Your task to perform on an android device: search for outdoor chairs on article.com Image 0: 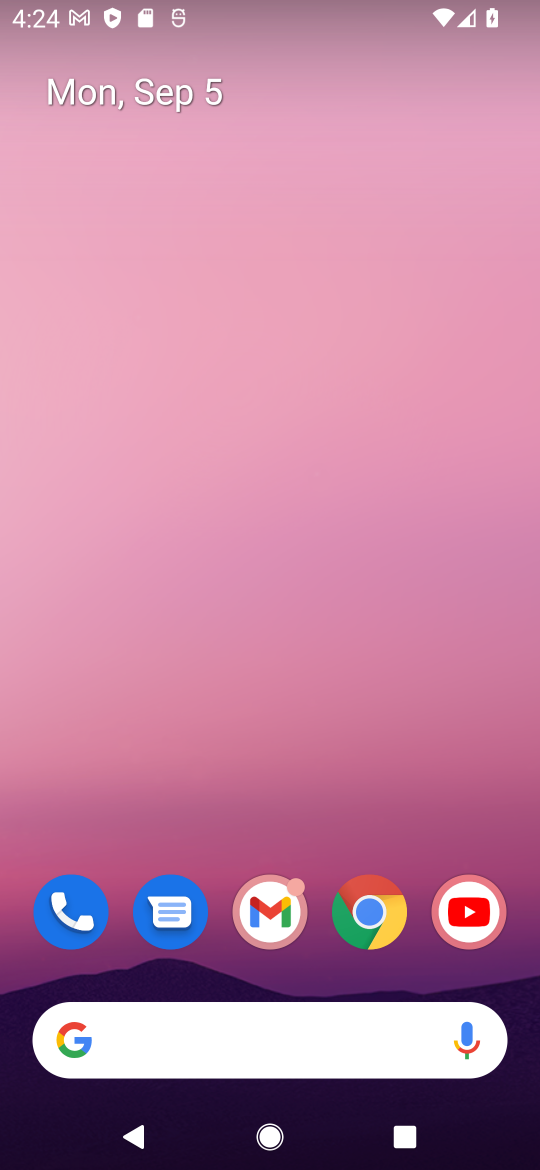
Step 0: click (373, 927)
Your task to perform on an android device: search for outdoor chairs on article.com Image 1: 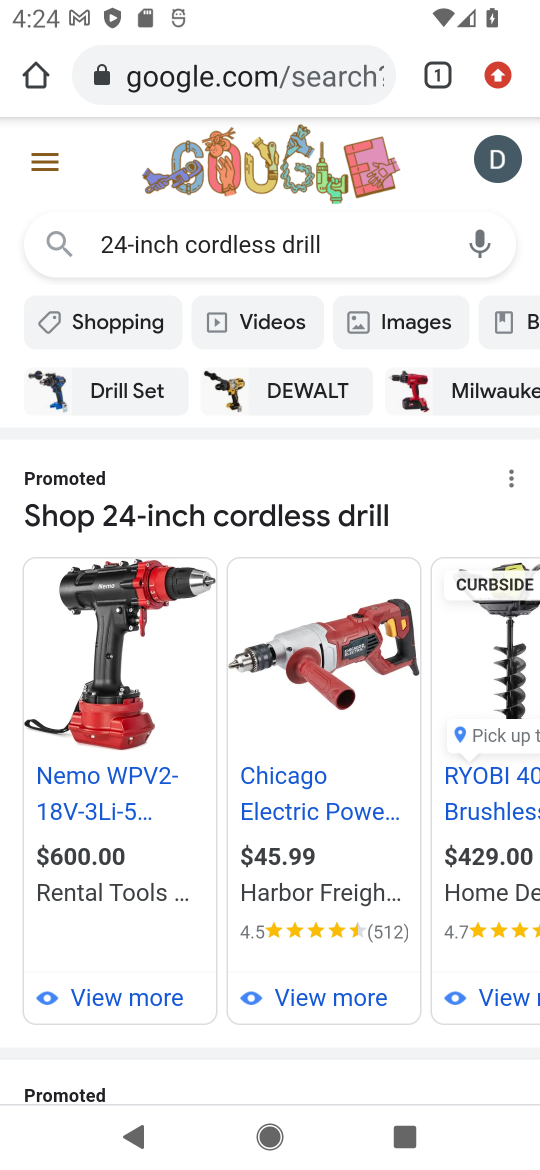
Step 1: click (303, 67)
Your task to perform on an android device: search for outdoor chairs on article.com Image 2: 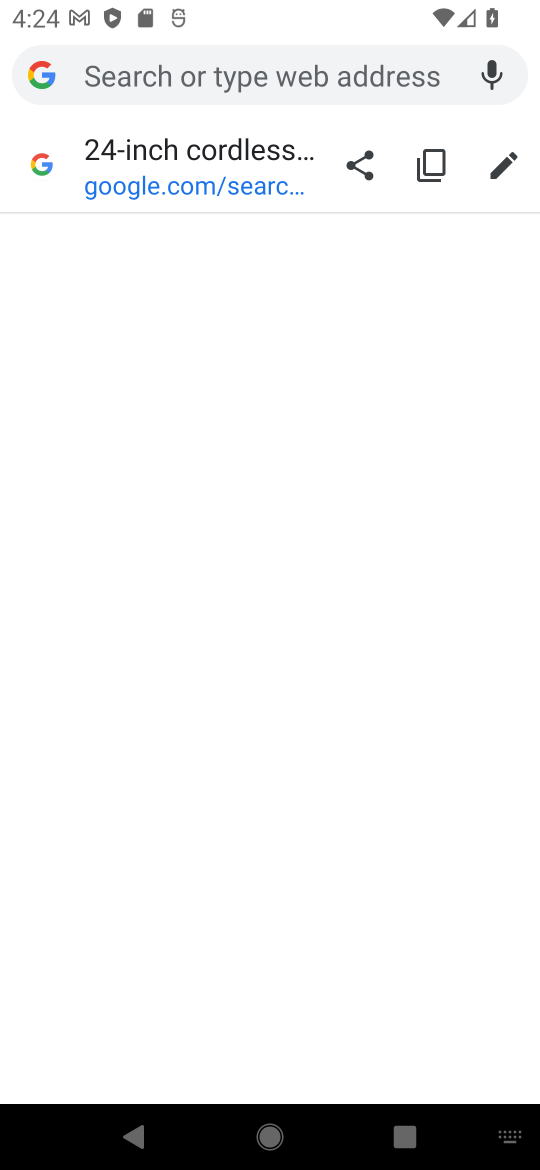
Step 2: type "article.com"
Your task to perform on an android device: search for outdoor chairs on article.com Image 3: 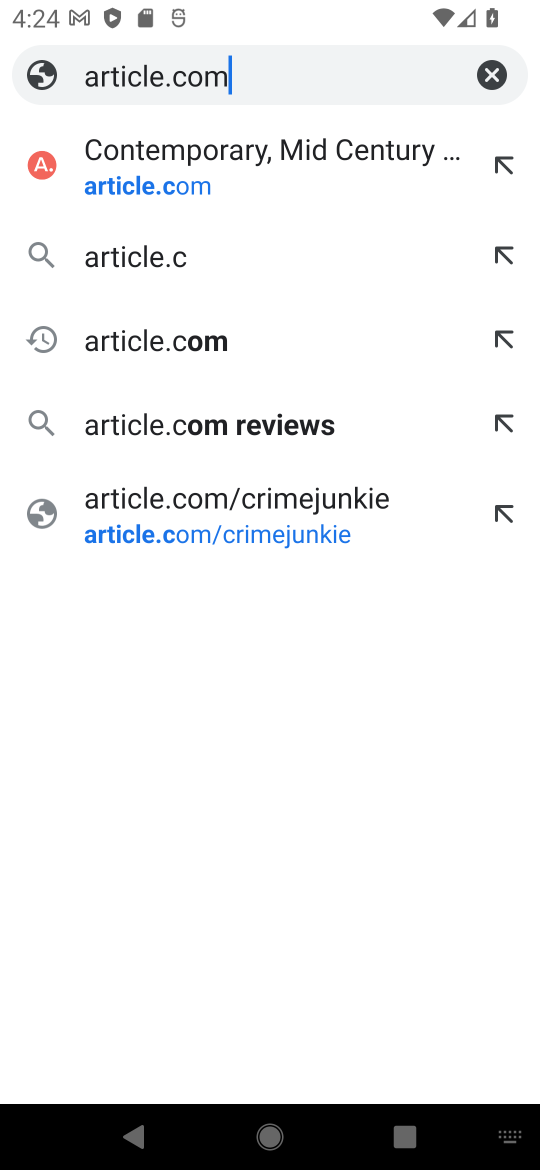
Step 3: type ""
Your task to perform on an android device: search for outdoor chairs on article.com Image 4: 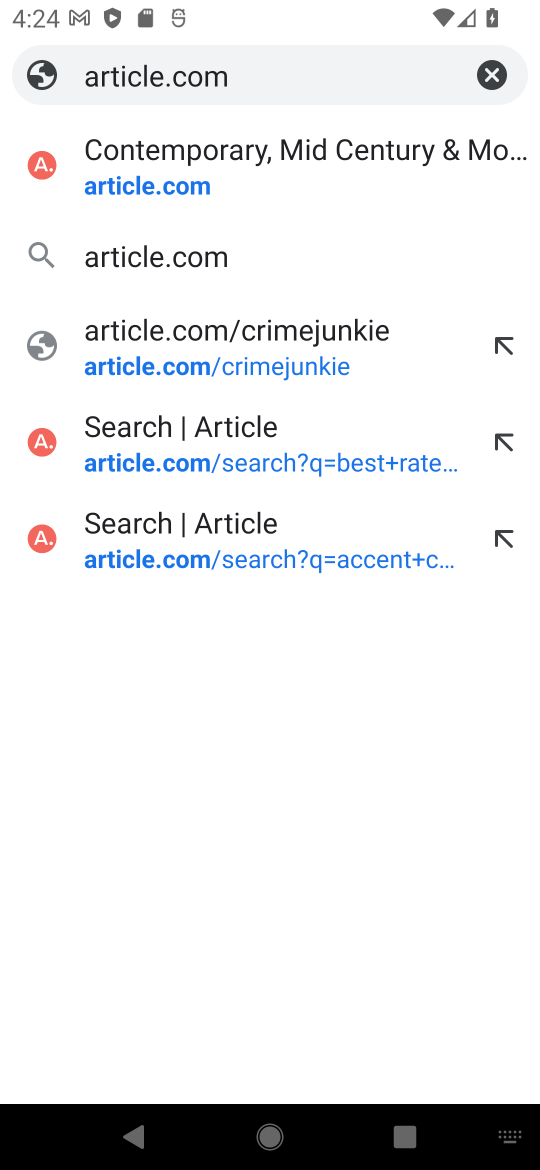
Step 4: press enter
Your task to perform on an android device: search for outdoor chairs on article.com Image 5: 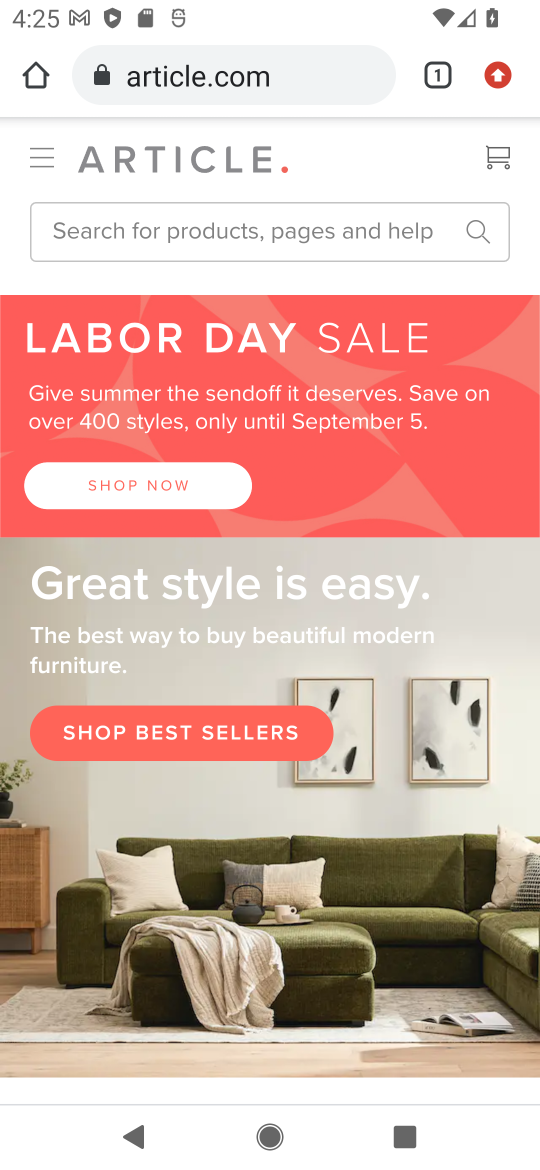
Step 5: click (304, 236)
Your task to perform on an android device: search for outdoor chairs on article.com Image 6: 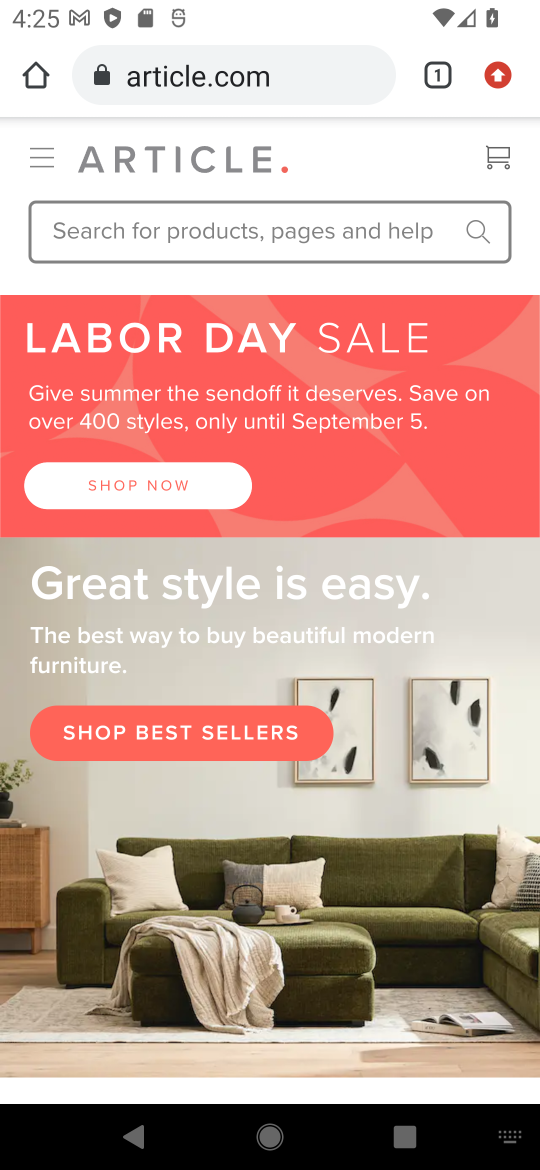
Step 6: type "outdoor chairs"
Your task to perform on an android device: search for outdoor chairs on article.com Image 7: 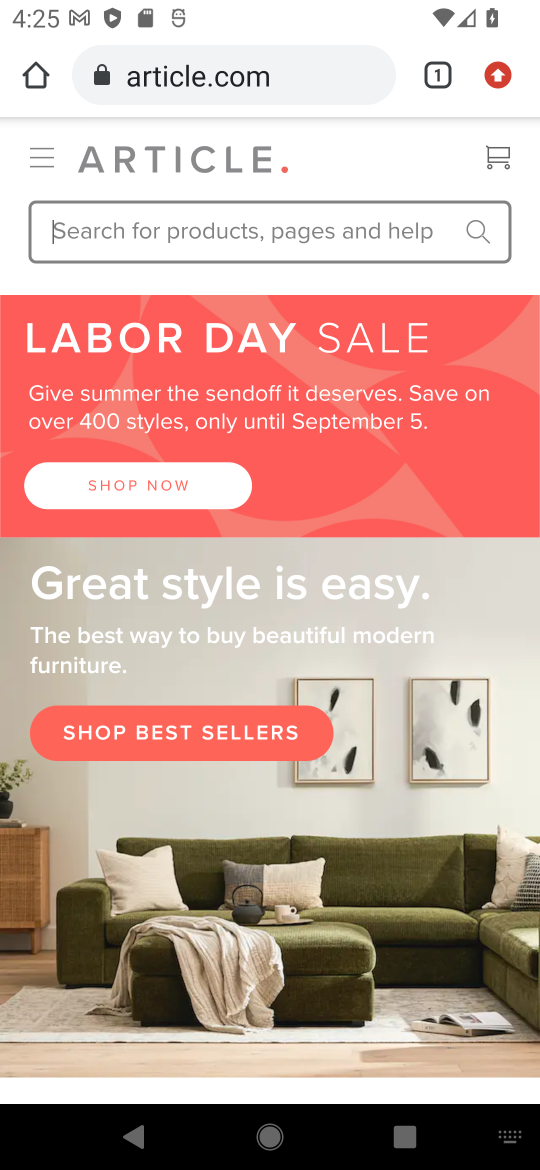
Step 7: type ""
Your task to perform on an android device: search for outdoor chairs on article.com Image 8: 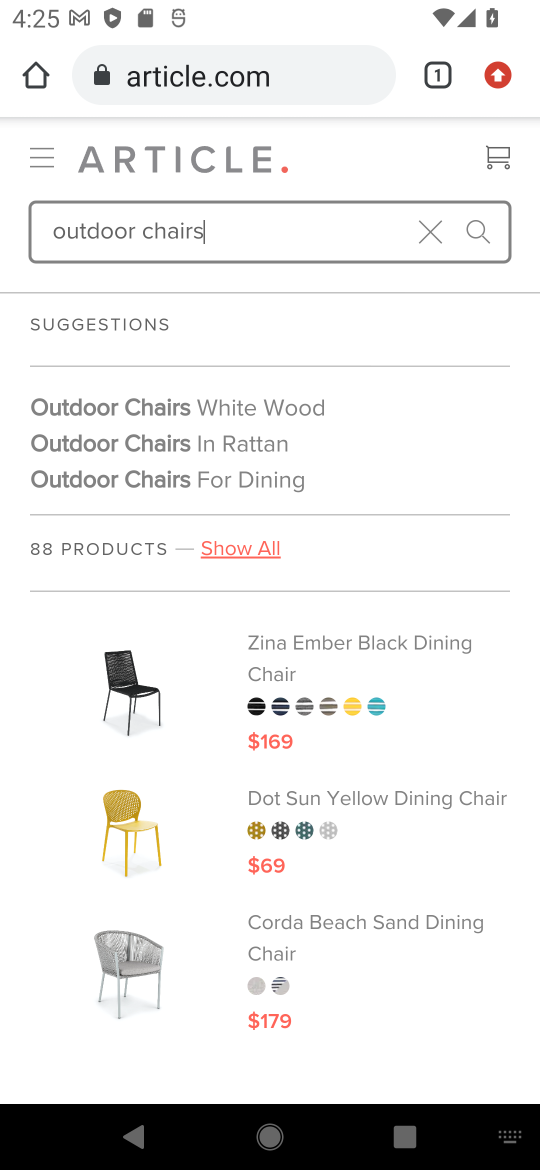
Step 8: press enter
Your task to perform on an android device: search for outdoor chairs on article.com Image 9: 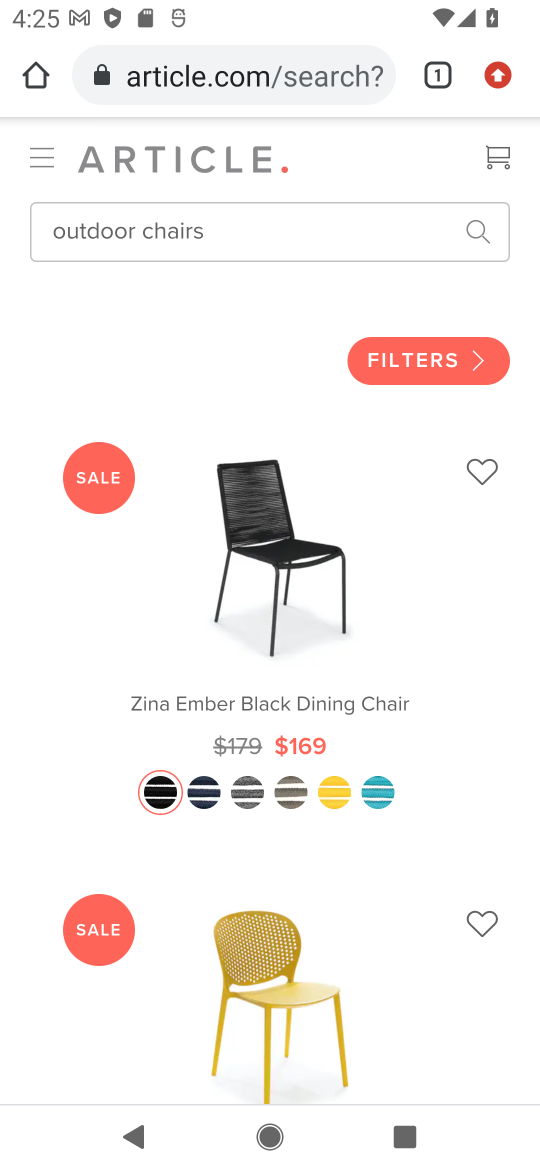
Step 9: task complete